Your task to perform on an android device: change your default location settings in chrome Image 0: 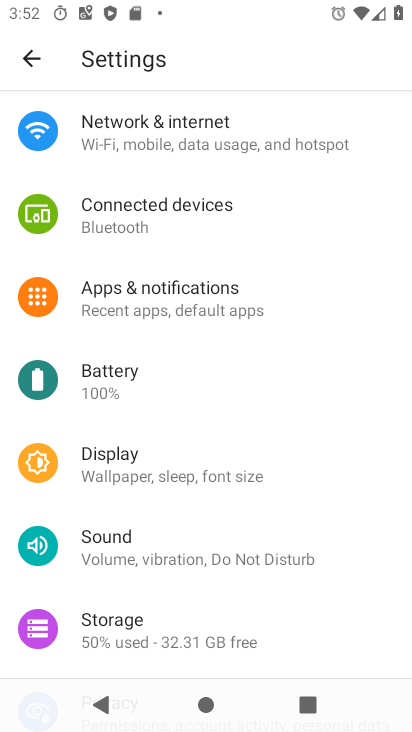
Step 0: press home button
Your task to perform on an android device: change your default location settings in chrome Image 1: 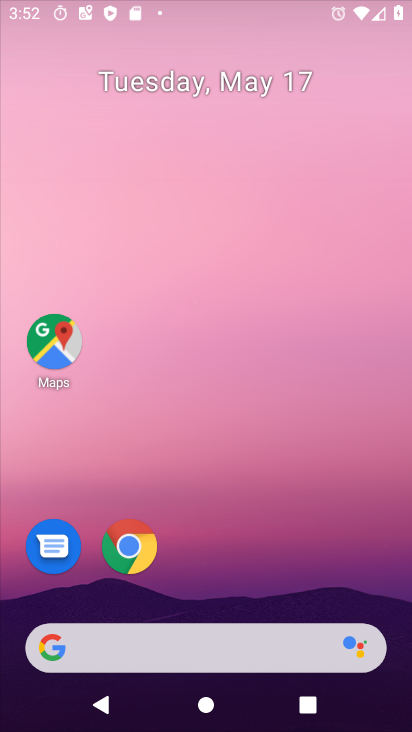
Step 1: drag from (232, 542) to (298, 15)
Your task to perform on an android device: change your default location settings in chrome Image 2: 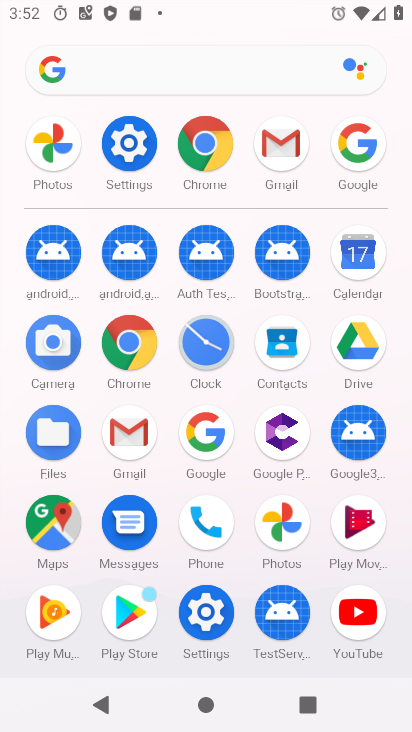
Step 2: click (211, 164)
Your task to perform on an android device: change your default location settings in chrome Image 3: 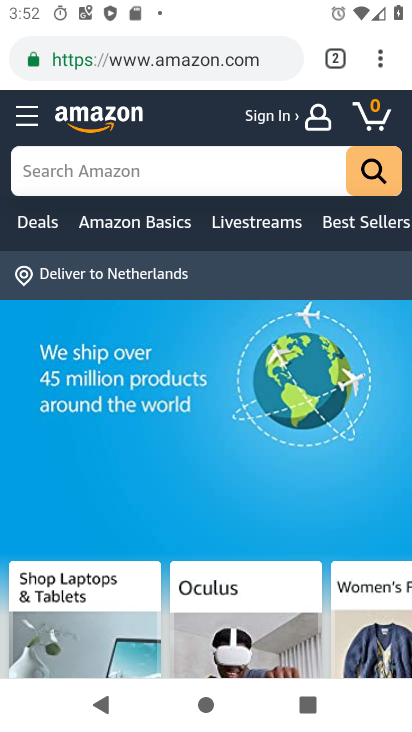
Step 3: click (381, 52)
Your task to perform on an android device: change your default location settings in chrome Image 4: 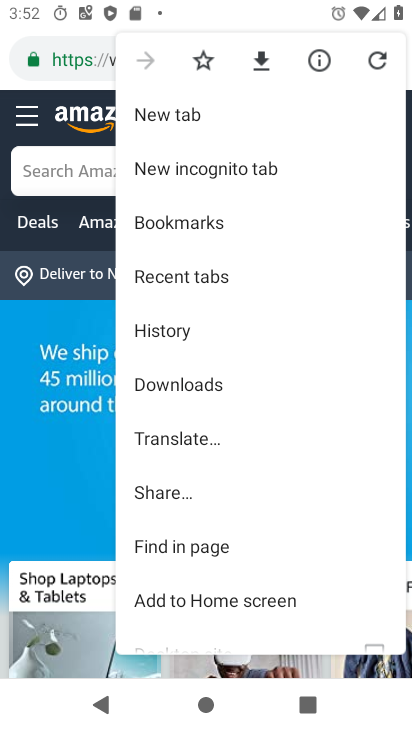
Step 4: drag from (284, 471) to (303, 313)
Your task to perform on an android device: change your default location settings in chrome Image 5: 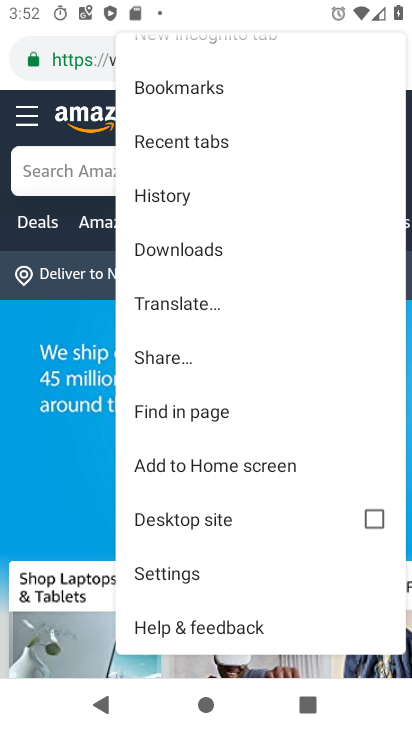
Step 5: click (198, 575)
Your task to perform on an android device: change your default location settings in chrome Image 6: 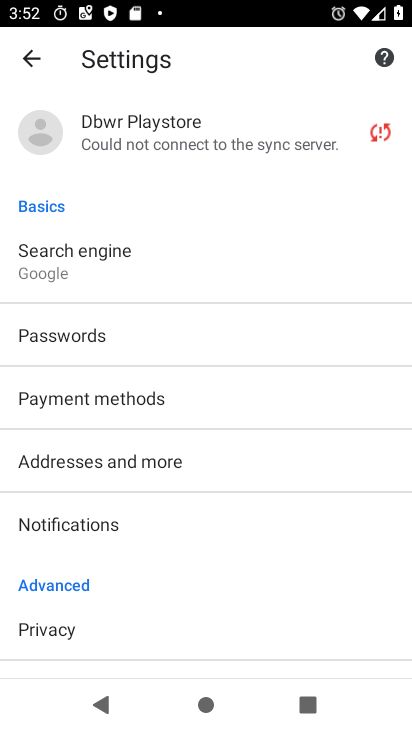
Step 6: drag from (201, 551) to (243, 178)
Your task to perform on an android device: change your default location settings in chrome Image 7: 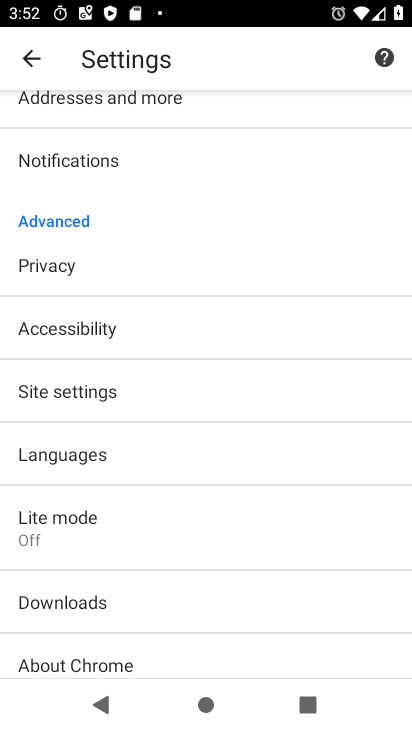
Step 7: drag from (202, 291) to (170, 575)
Your task to perform on an android device: change your default location settings in chrome Image 8: 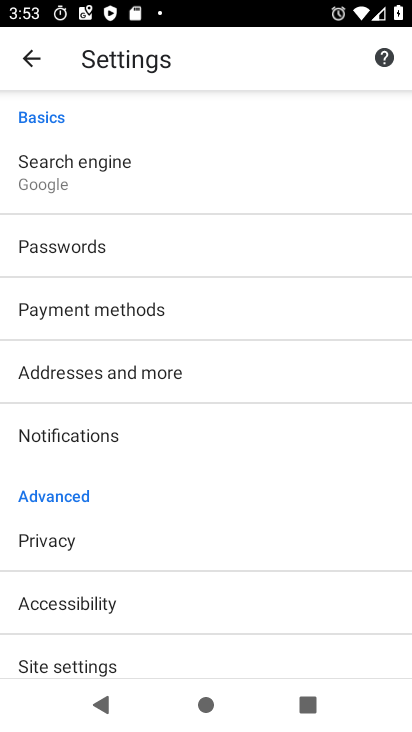
Step 8: drag from (140, 481) to (164, 342)
Your task to perform on an android device: change your default location settings in chrome Image 9: 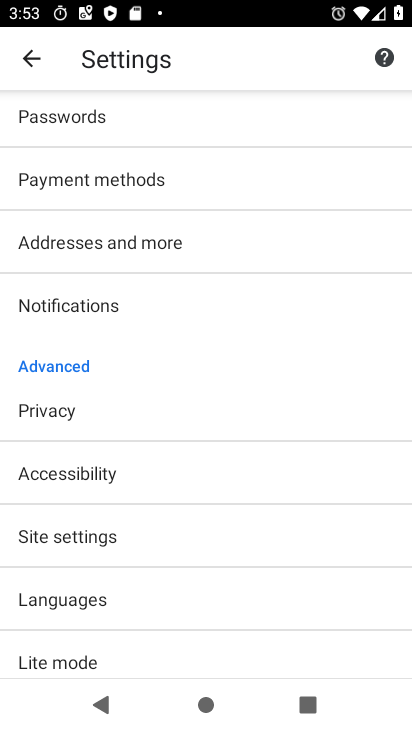
Step 9: click (149, 535)
Your task to perform on an android device: change your default location settings in chrome Image 10: 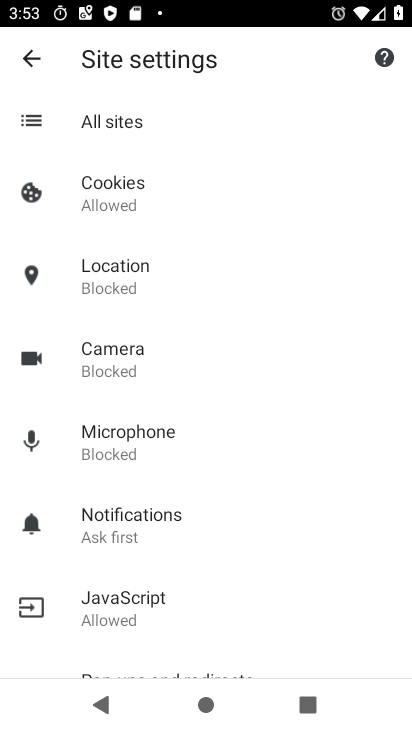
Step 10: click (157, 282)
Your task to perform on an android device: change your default location settings in chrome Image 11: 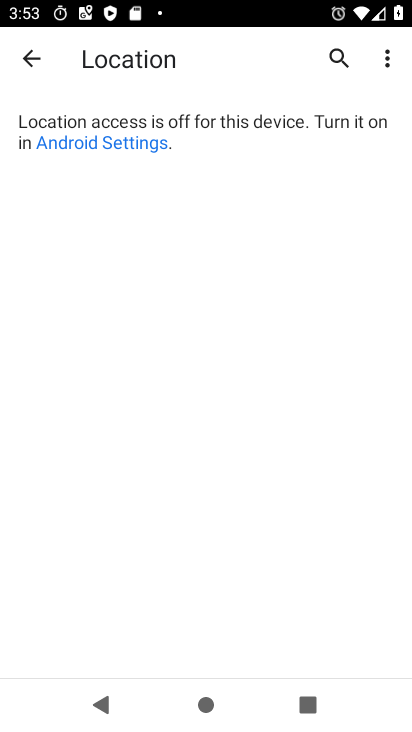
Step 11: task complete